Your task to perform on an android device: toggle wifi Image 0: 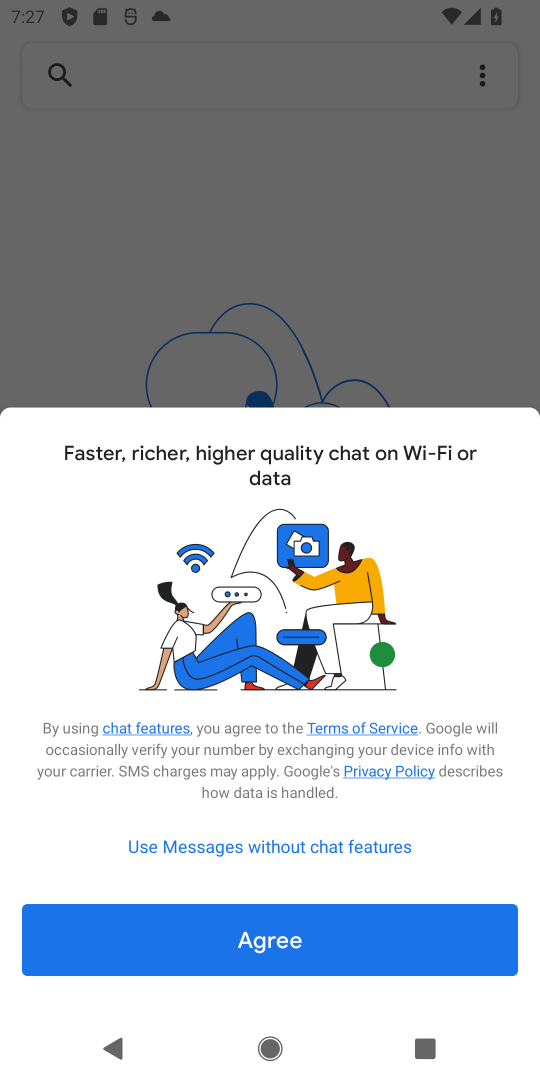
Step 0: press home button
Your task to perform on an android device: toggle wifi Image 1: 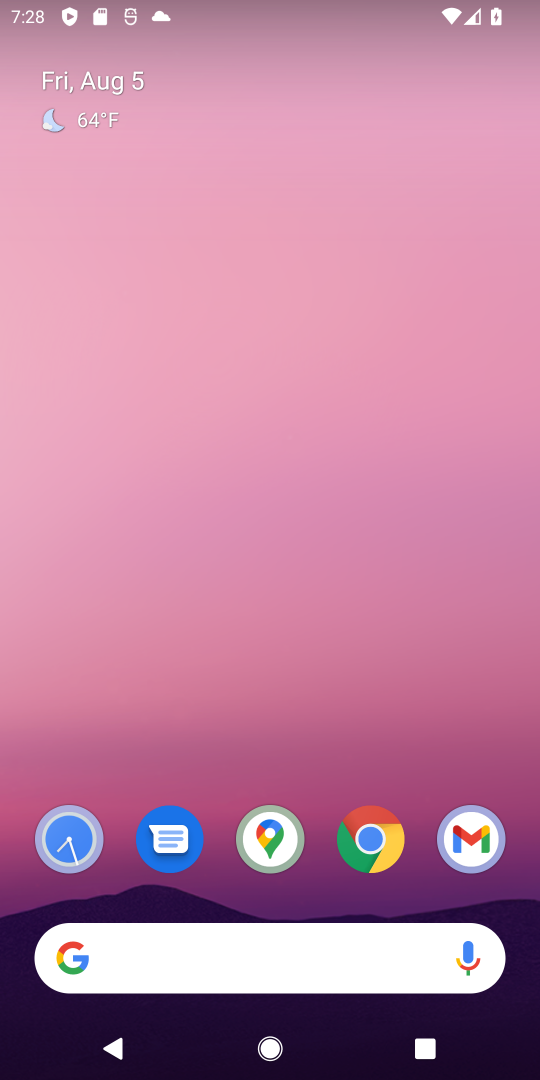
Step 1: drag from (318, 630) to (318, 98)
Your task to perform on an android device: toggle wifi Image 2: 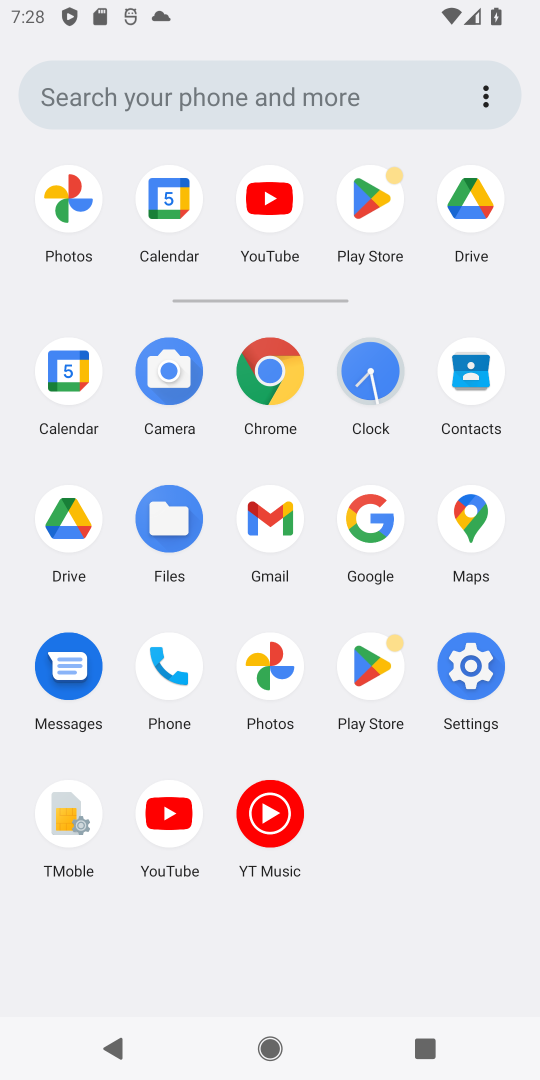
Step 2: click (482, 671)
Your task to perform on an android device: toggle wifi Image 3: 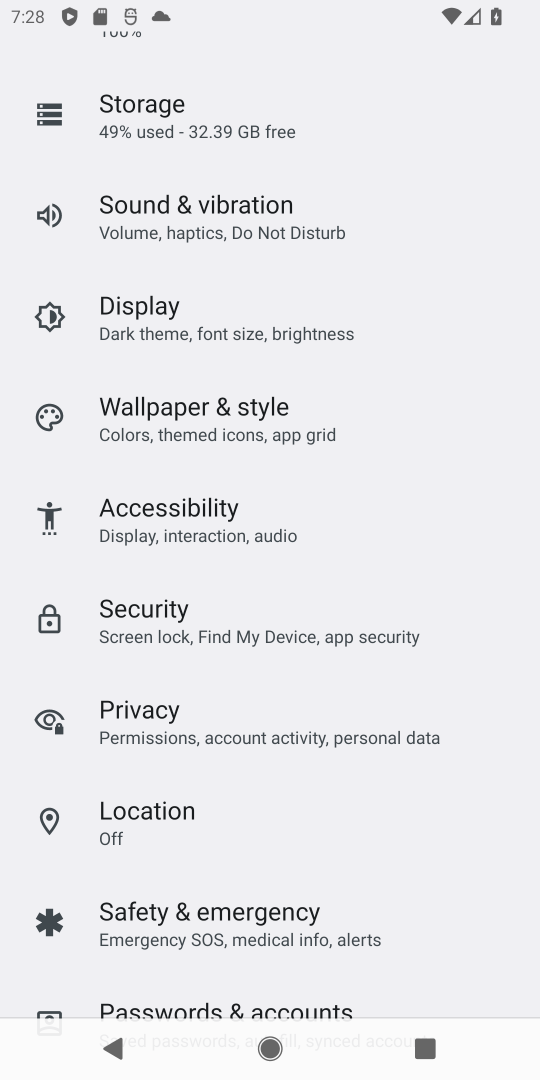
Step 3: drag from (268, 182) to (279, 696)
Your task to perform on an android device: toggle wifi Image 4: 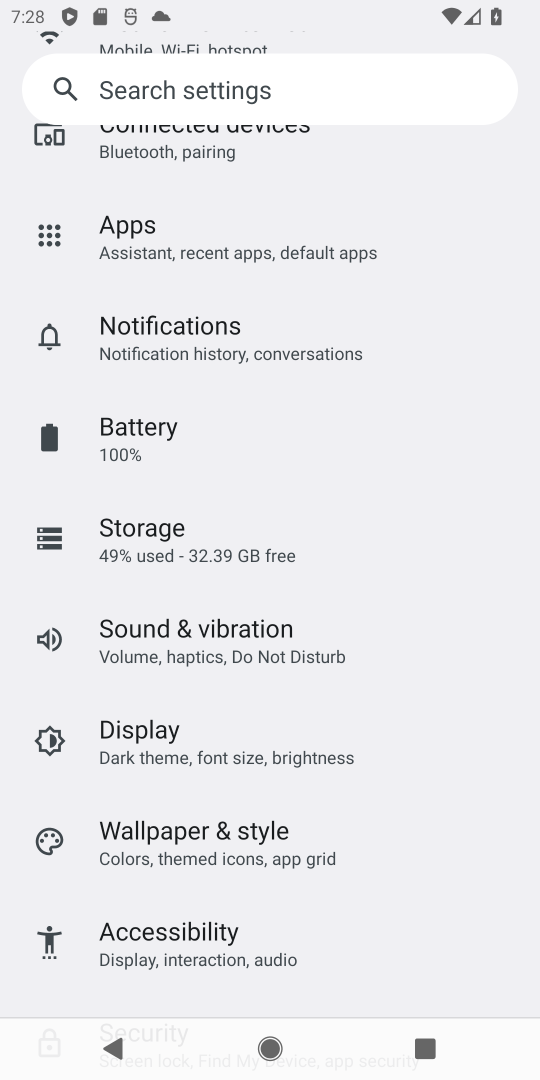
Step 4: drag from (191, 223) to (207, 635)
Your task to perform on an android device: toggle wifi Image 5: 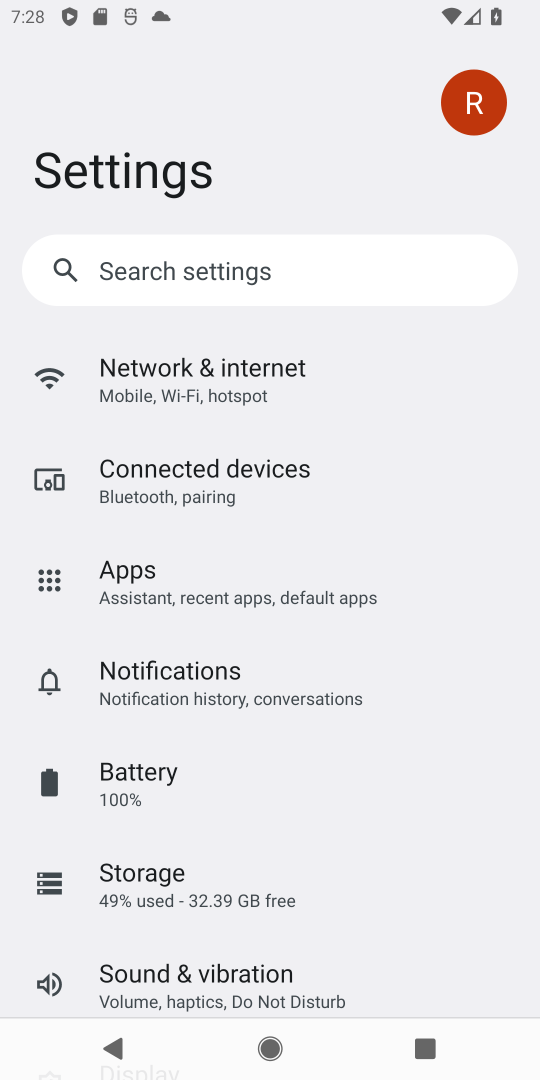
Step 5: click (169, 388)
Your task to perform on an android device: toggle wifi Image 6: 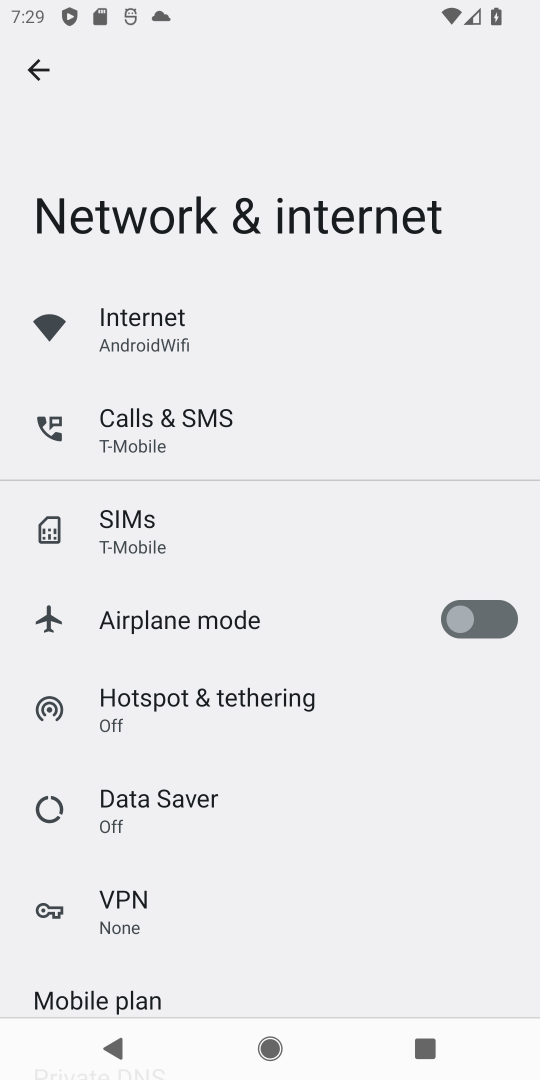
Step 6: click (145, 320)
Your task to perform on an android device: toggle wifi Image 7: 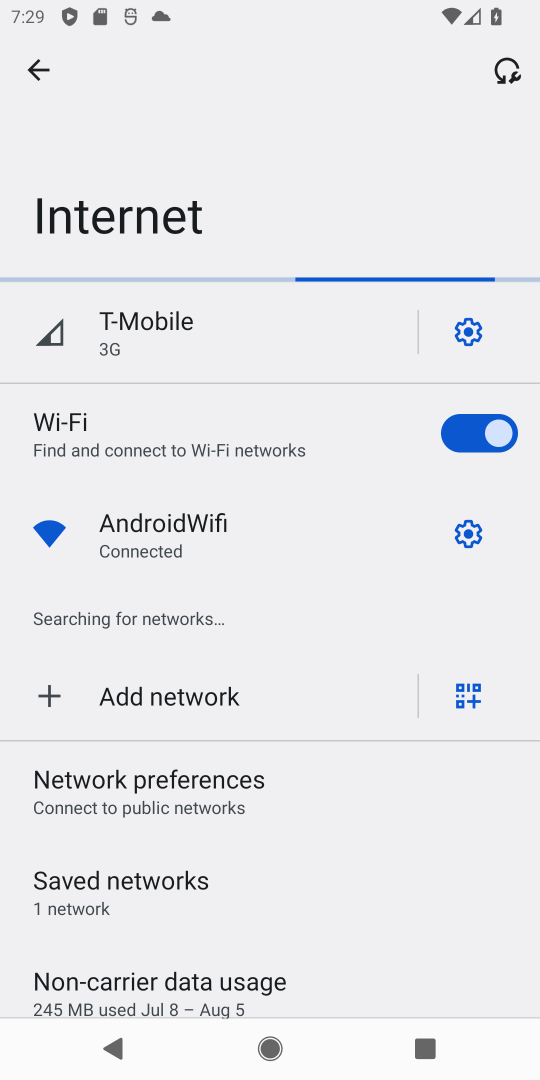
Step 7: click (473, 441)
Your task to perform on an android device: toggle wifi Image 8: 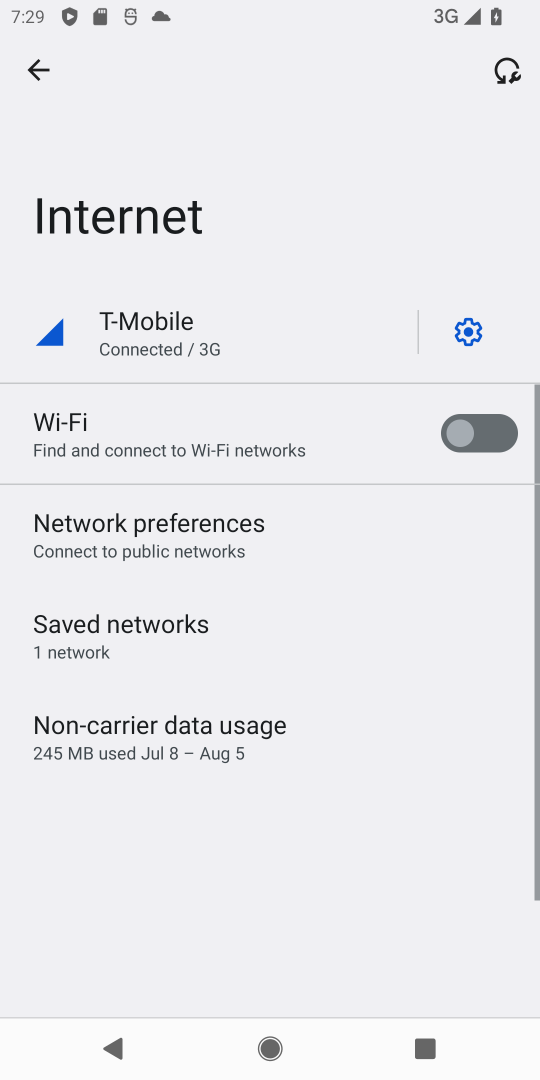
Step 8: task complete